Your task to perform on an android device: change notification settings in the gmail app Image 0: 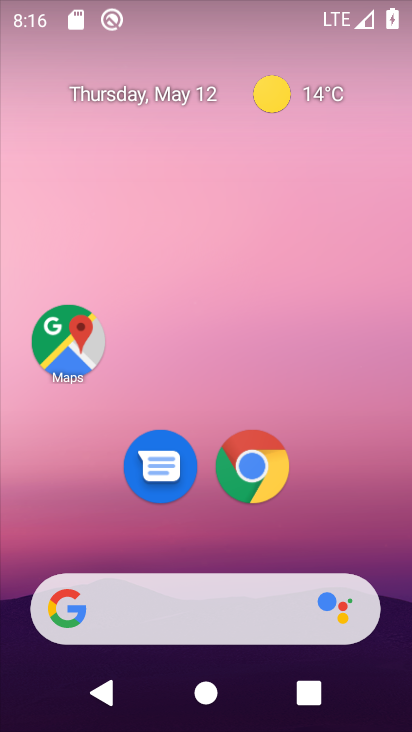
Step 0: press home button
Your task to perform on an android device: change notification settings in the gmail app Image 1: 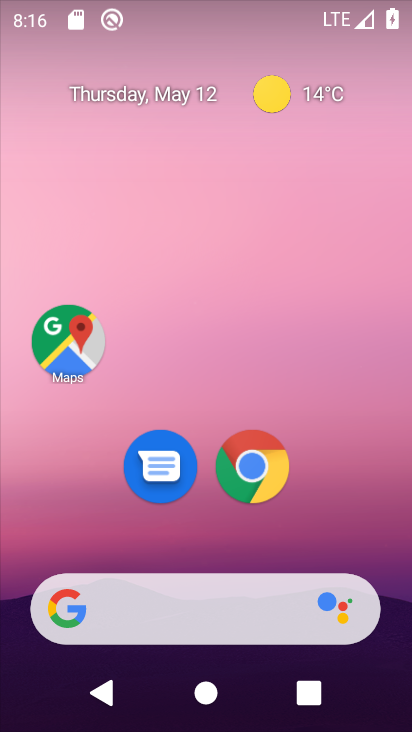
Step 1: drag from (205, 534) to (227, 69)
Your task to perform on an android device: change notification settings in the gmail app Image 2: 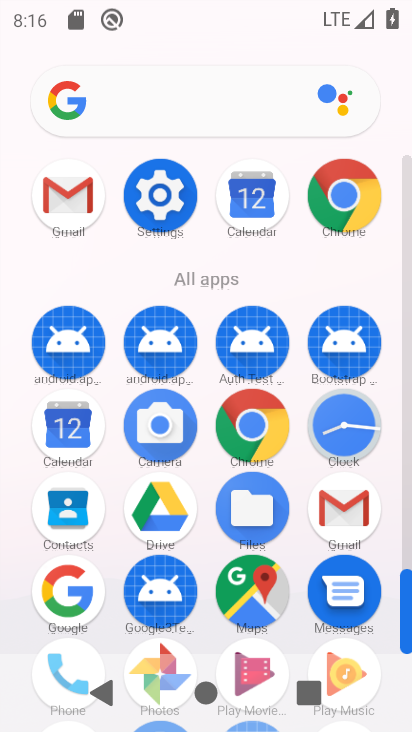
Step 2: click (64, 188)
Your task to perform on an android device: change notification settings in the gmail app Image 3: 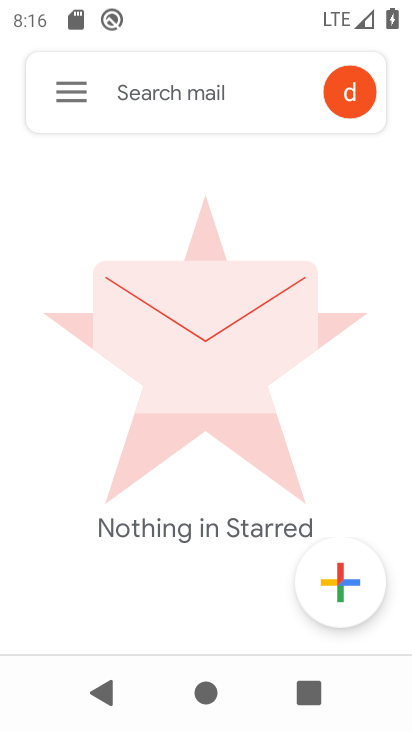
Step 3: click (71, 93)
Your task to perform on an android device: change notification settings in the gmail app Image 4: 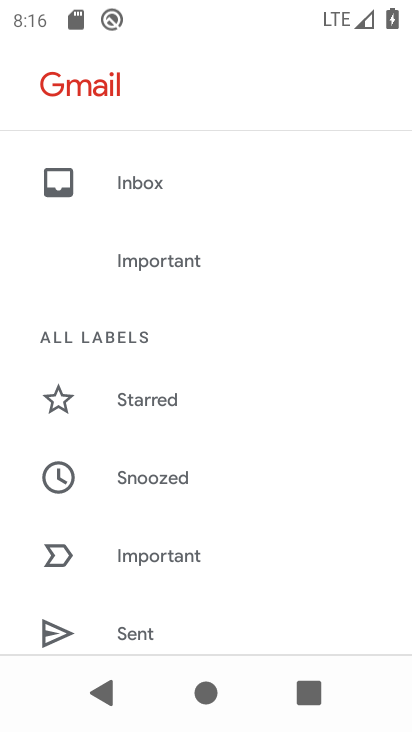
Step 4: drag from (120, 583) to (128, 65)
Your task to perform on an android device: change notification settings in the gmail app Image 5: 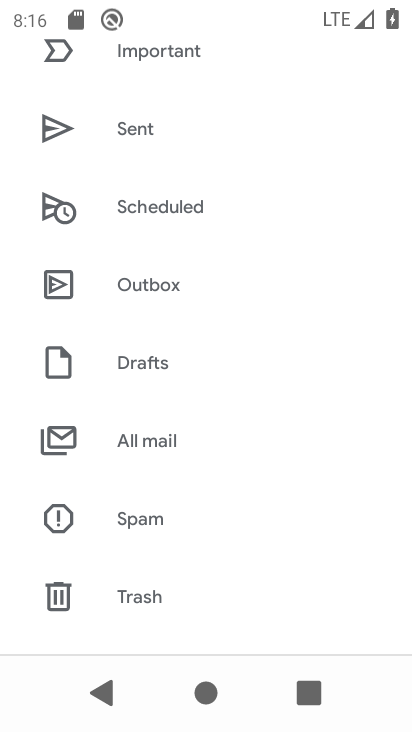
Step 5: drag from (148, 576) to (205, 13)
Your task to perform on an android device: change notification settings in the gmail app Image 6: 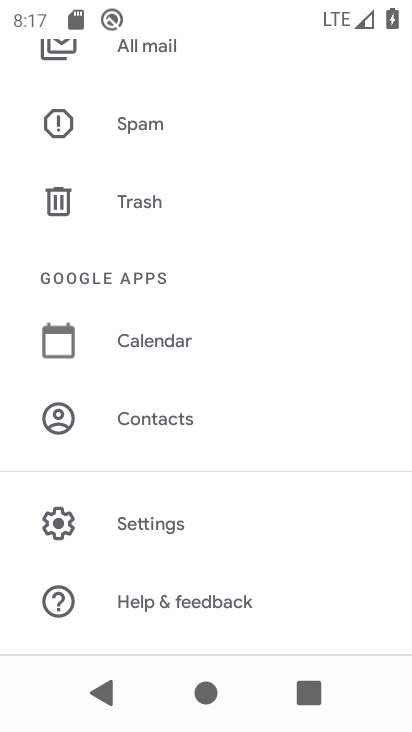
Step 6: click (130, 524)
Your task to perform on an android device: change notification settings in the gmail app Image 7: 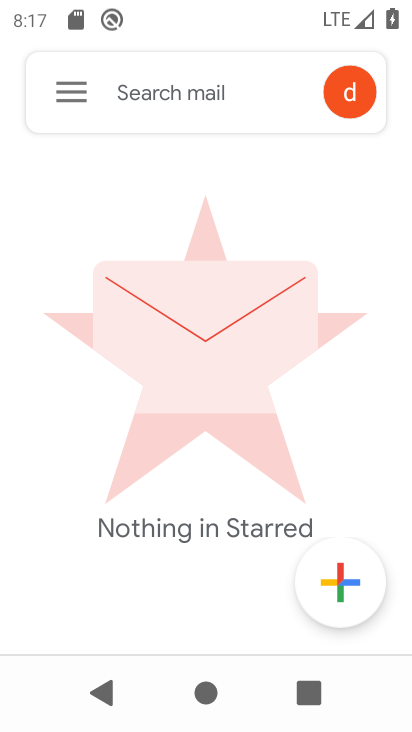
Step 7: click (131, 522)
Your task to perform on an android device: change notification settings in the gmail app Image 8: 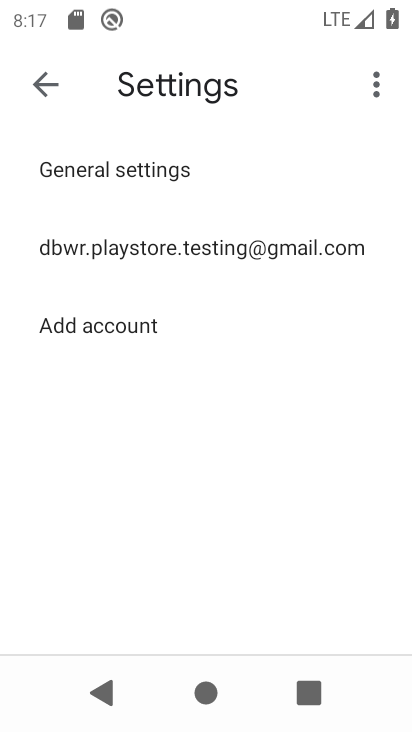
Step 8: click (142, 162)
Your task to perform on an android device: change notification settings in the gmail app Image 9: 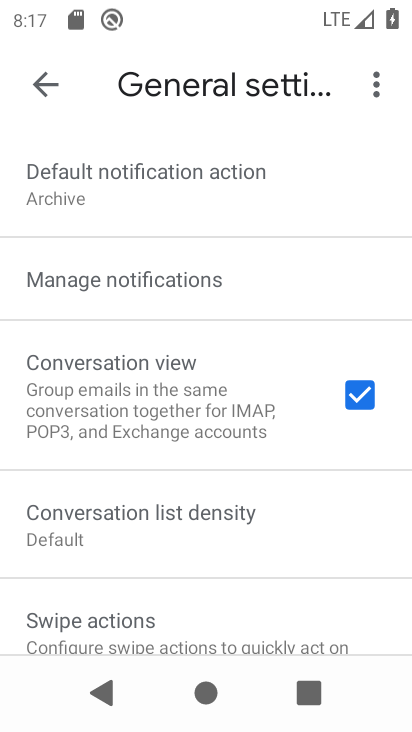
Step 9: click (212, 277)
Your task to perform on an android device: change notification settings in the gmail app Image 10: 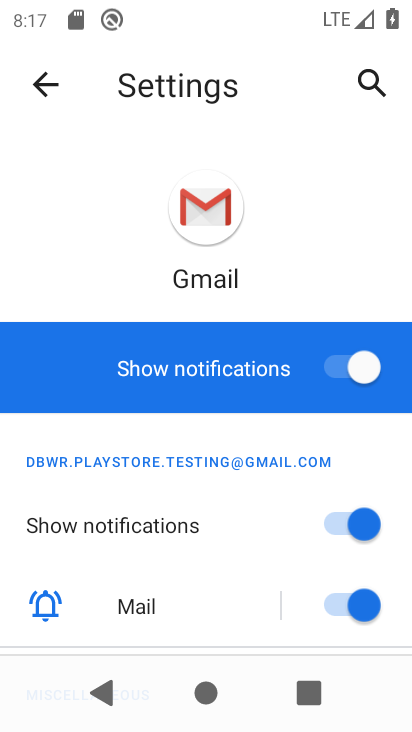
Step 10: click (337, 361)
Your task to perform on an android device: change notification settings in the gmail app Image 11: 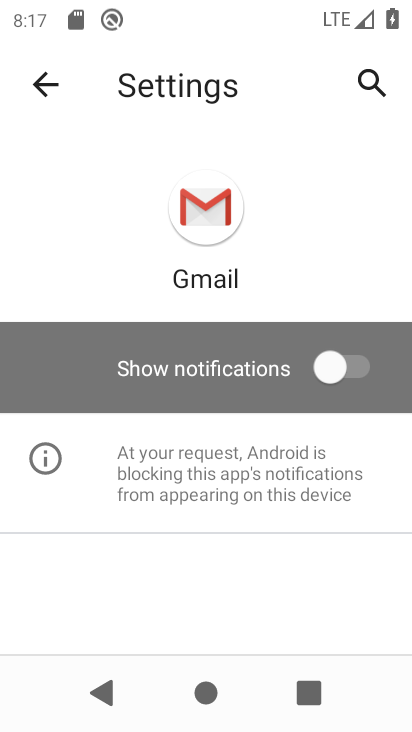
Step 11: task complete